Your task to perform on an android device: manage bookmarks in the chrome app Image 0: 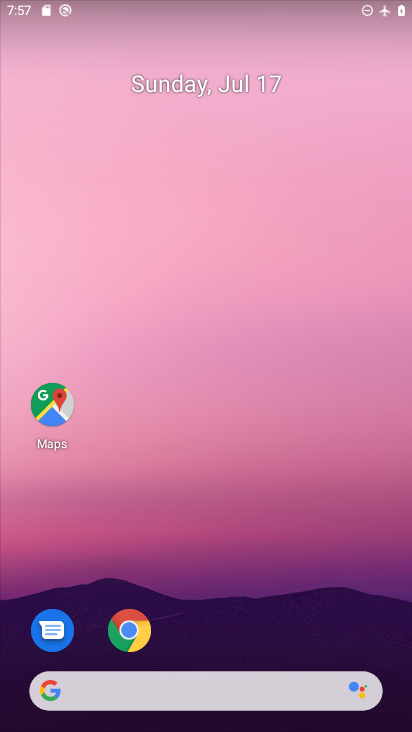
Step 0: drag from (332, 587) to (225, 132)
Your task to perform on an android device: manage bookmarks in the chrome app Image 1: 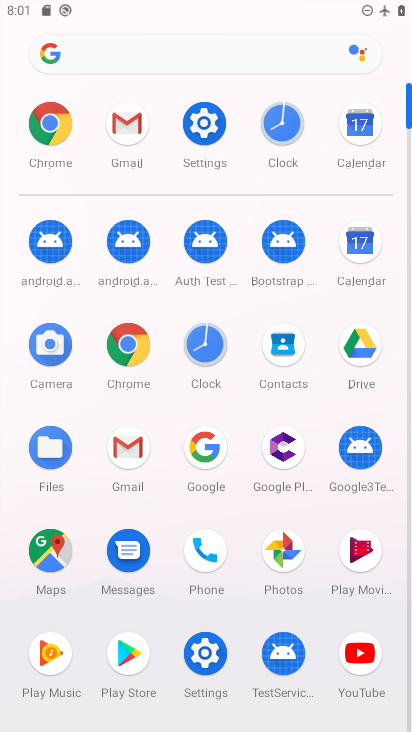
Step 1: click (126, 354)
Your task to perform on an android device: manage bookmarks in the chrome app Image 2: 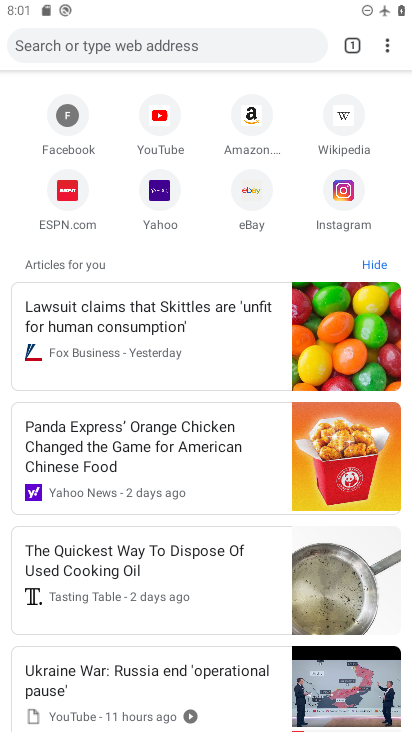
Step 2: click (387, 40)
Your task to perform on an android device: manage bookmarks in the chrome app Image 3: 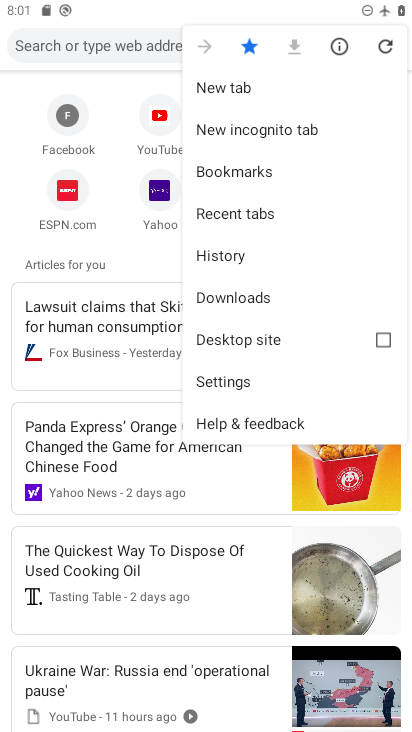
Step 3: task complete